Your task to perform on an android device: Show me popular videos on Youtube Image 0: 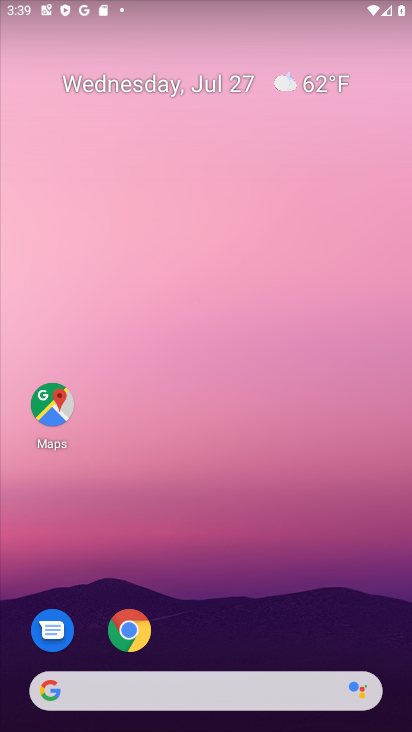
Step 0: drag from (189, 644) to (142, 62)
Your task to perform on an android device: Show me popular videos on Youtube Image 1: 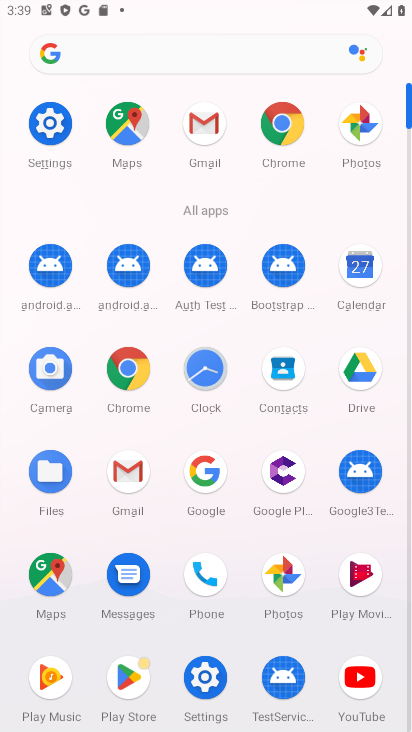
Step 1: click (361, 686)
Your task to perform on an android device: Show me popular videos on Youtube Image 2: 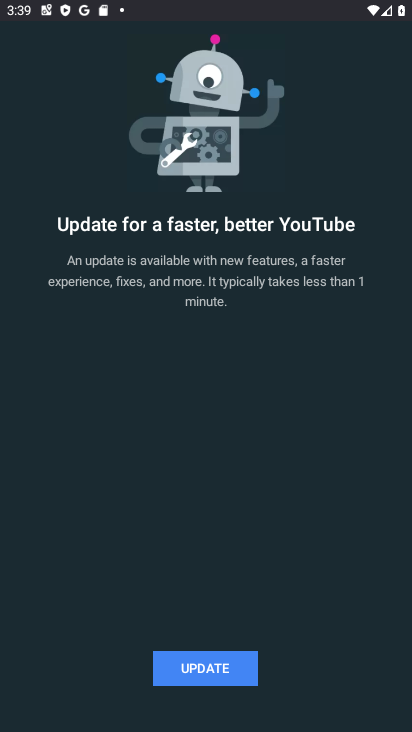
Step 2: click (137, 665)
Your task to perform on an android device: Show me popular videos on Youtube Image 3: 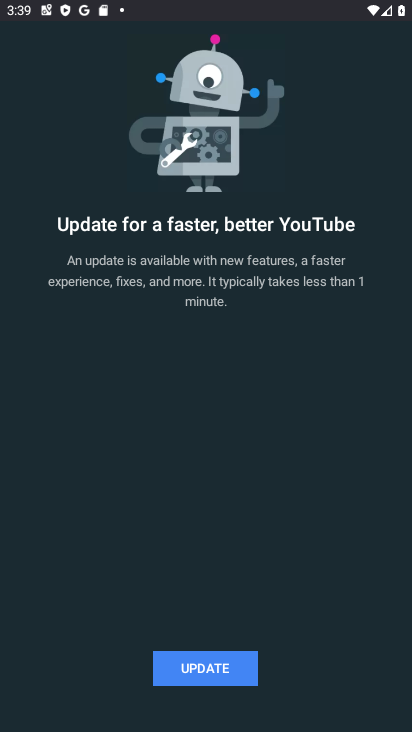
Step 3: click (224, 668)
Your task to perform on an android device: Show me popular videos on Youtube Image 4: 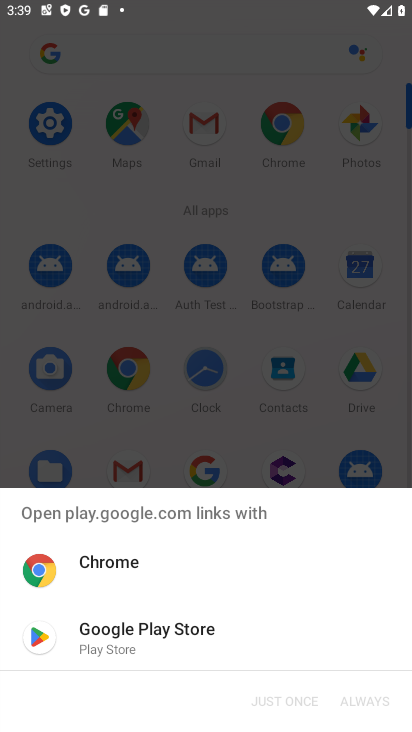
Step 4: click (127, 628)
Your task to perform on an android device: Show me popular videos on Youtube Image 5: 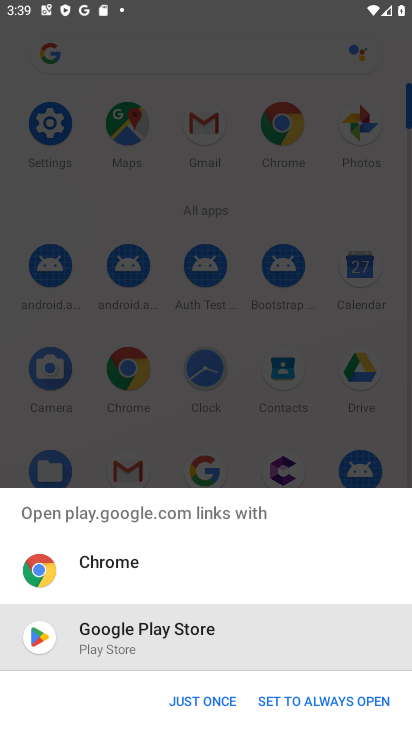
Step 5: click (188, 701)
Your task to perform on an android device: Show me popular videos on Youtube Image 6: 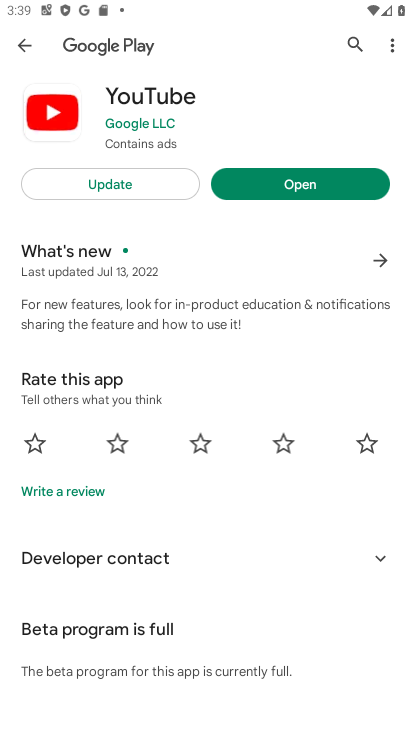
Step 6: click (111, 198)
Your task to perform on an android device: Show me popular videos on Youtube Image 7: 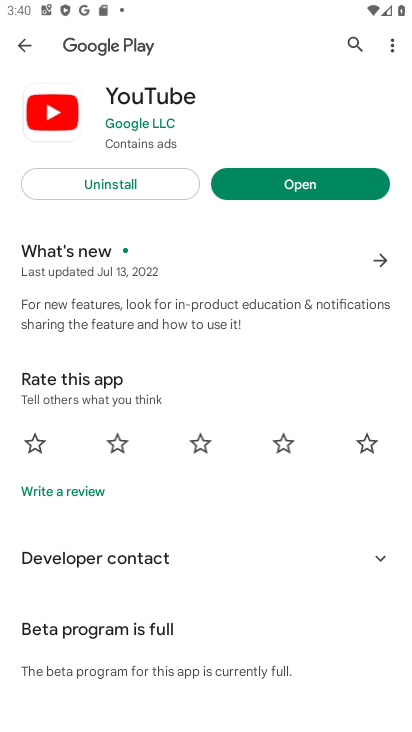
Step 7: click (327, 188)
Your task to perform on an android device: Show me popular videos on Youtube Image 8: 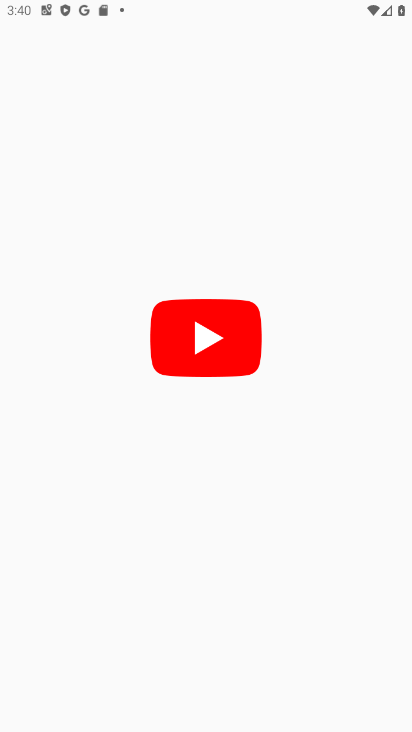
Step 8: click (327, 188)
Your task to perform on an android device: Show me popular videos on Youtube Image 9: 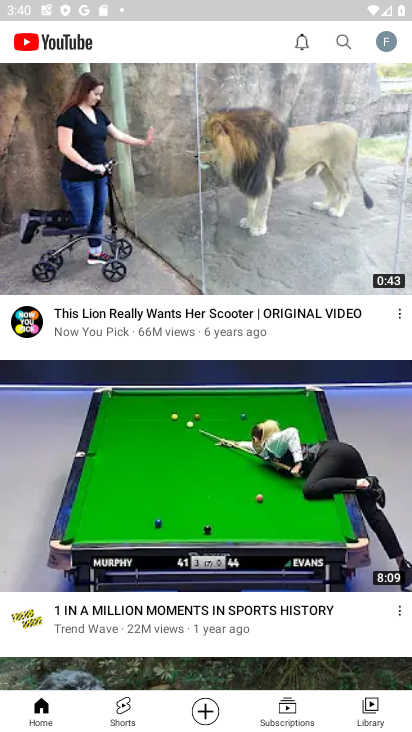
Step 9: drag from (309, 124) to (272, 564)
Your task to perform on an android device: Show me popular videos on Youtube Image 10: 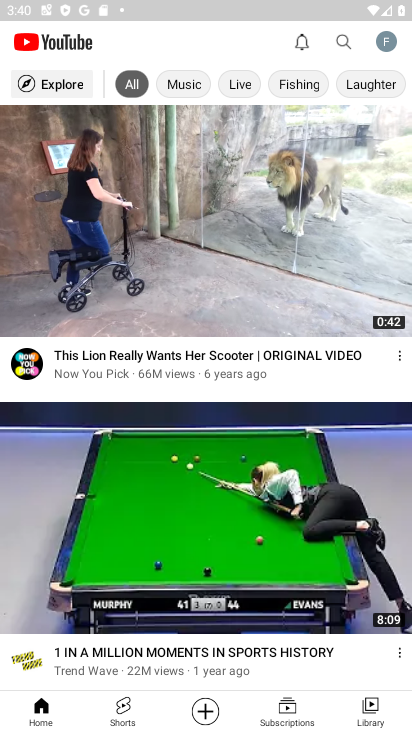
Step 10: click (69, 85)
Your task to perform on an android device: Show me popular videos on Youtube Image 11: 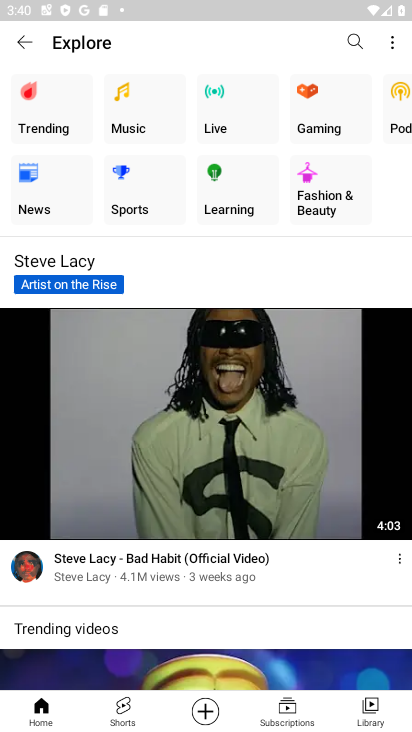
Step 11: click (43, 111)
Your task to perform on an android device: Show me popular videos on Youtube Image 12: 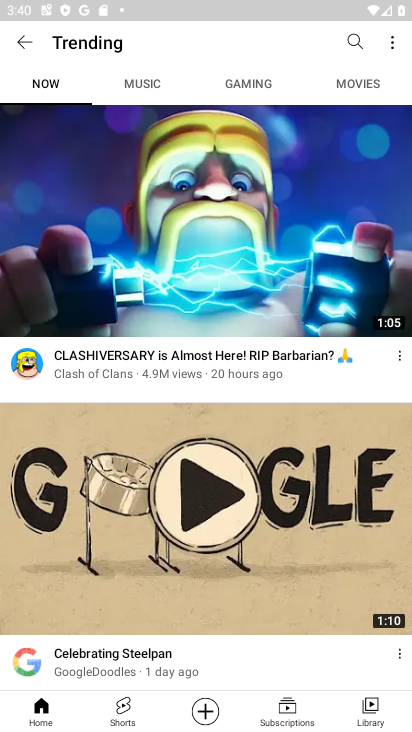
Step 12: click (255, 416)
Your task to perform on an android device: Show me popular videos on Youtube Image 13: 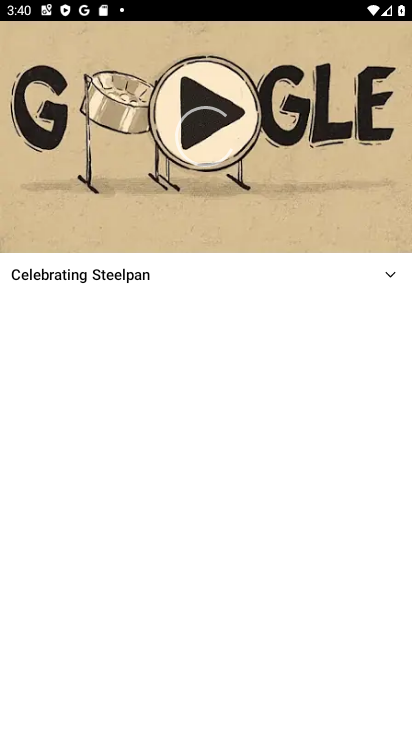
Step 13: task complete